Your task to perform on an android device: turn pop-ups off in chrome Image 0: 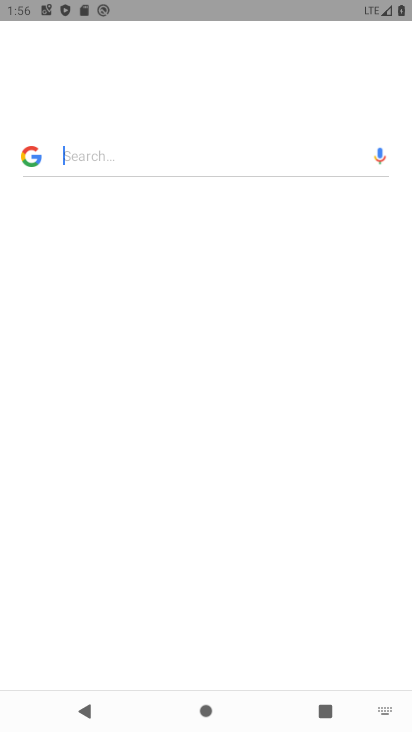
Step 0: drag from (195, 551) to (205, 194)
Your task to perform on an android device: turn pop-ups off in chrome Image 1: 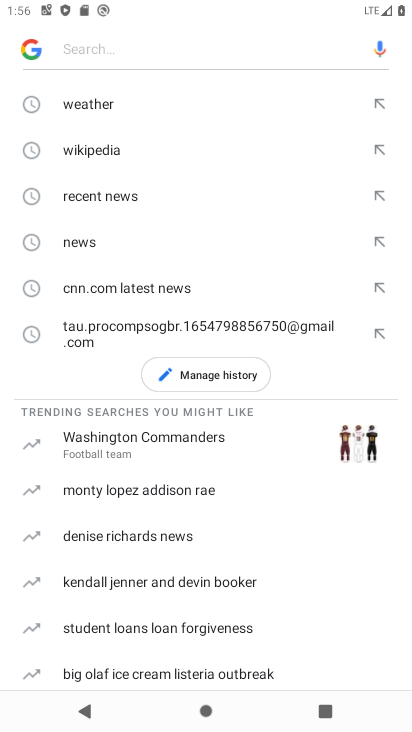
Step 1: press home button
Your task to perform on an android device: turn pop-ups off in chrome Image 2: 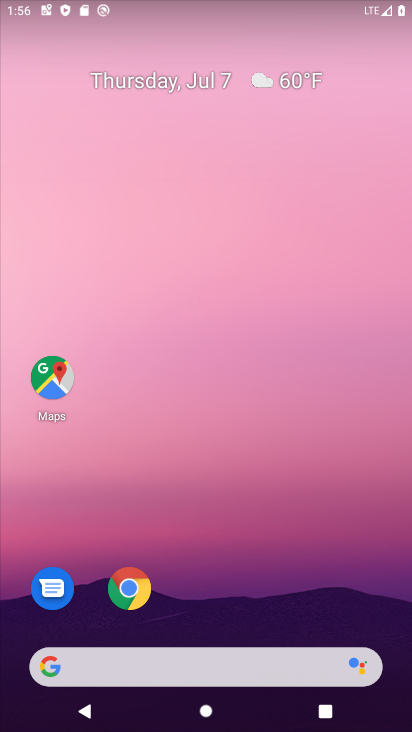
Step 2: drag from (227, 657) to (235, 241)
Your task to perform on an android device: turn pop-ups off in chrome Image 3: 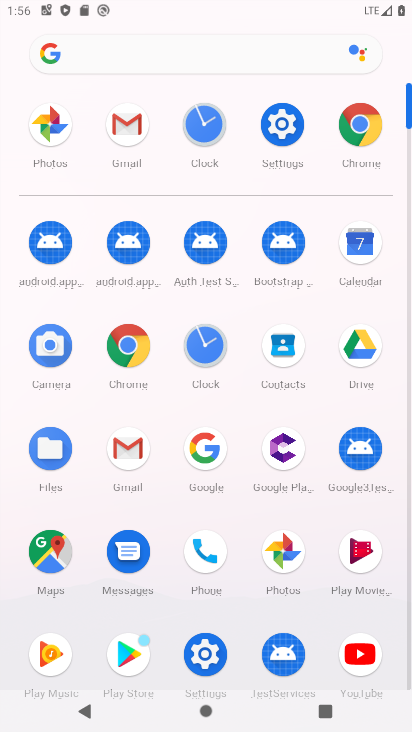
Step 3: click (284, 113)
Your task to perform on an android device: turn pop-ups off in chrome Image 4: 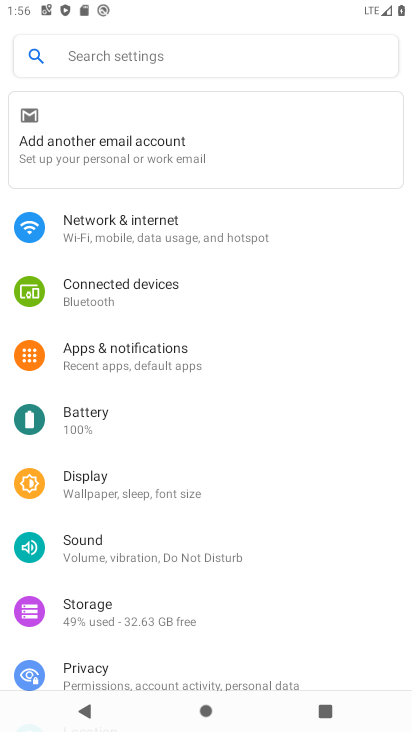
Step 4: press home button
Your task to perform on an android device: turn pop-ups off in chrome Image 5: 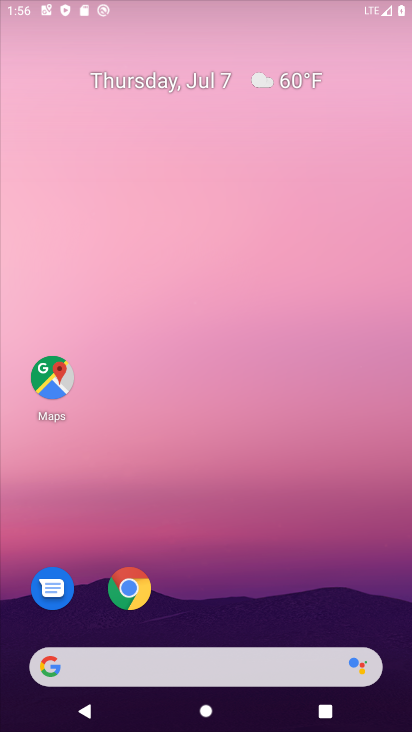
Step 5: drag from (173, 435) to (177, 131)
Your task to perform on an android device: turn pop-ups off in chrome Image 6: 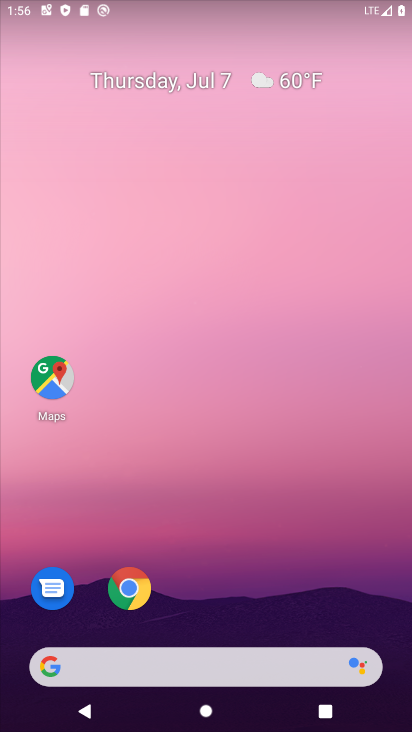
Step 6: click (128, 579)
Your task to perform on an android device: turn pop-ups off in chrome Image 7: 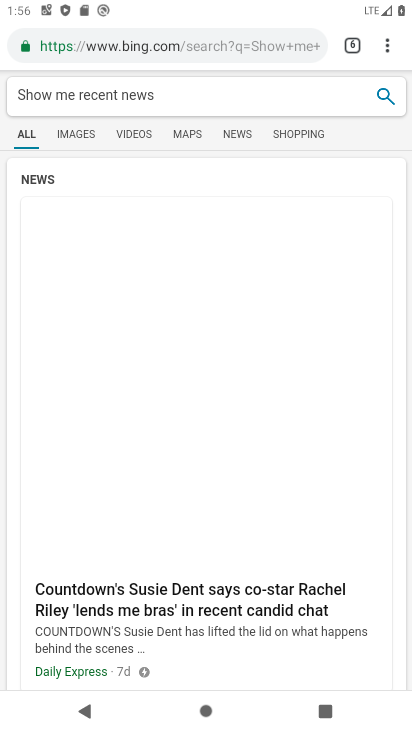
Step 7: click (375, 31)
Your task to perform on an android device: turn pop-ups off in chrome Image 8: 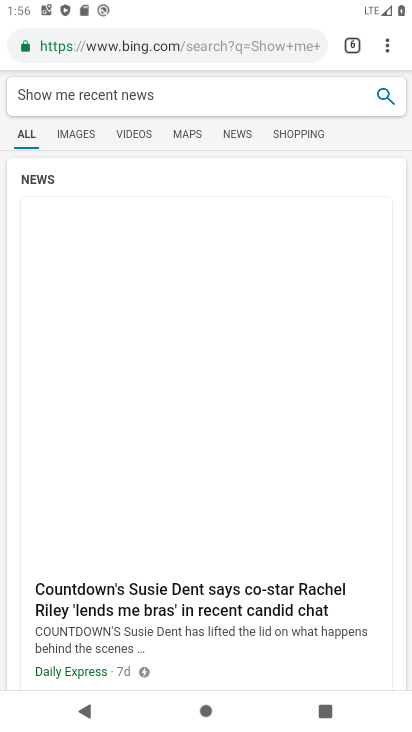
Step 8: click (382, 50)
Your task to perform on an android device: turn pop-ups off in chrome Image 9: 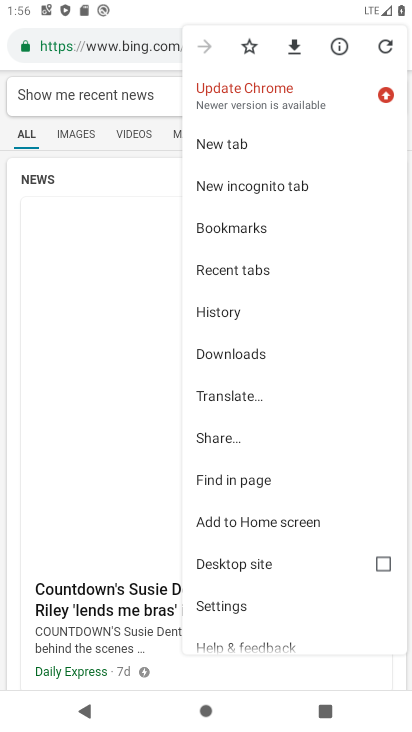
Step 9: click (244, 604)
Your task to perform on an android device: turn pop-ups off in chrome Image 10: 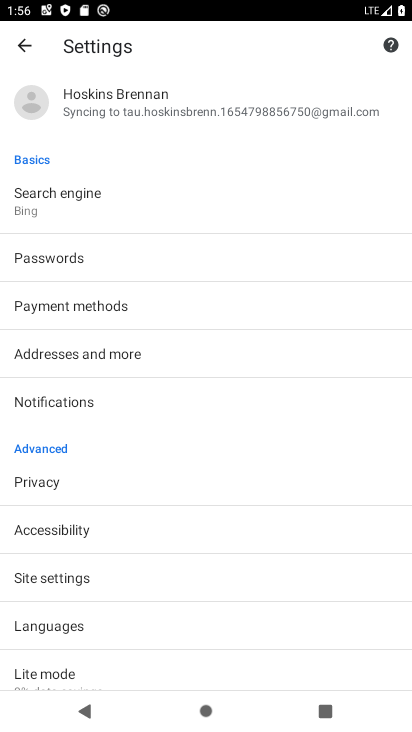
Step 10: drag from (105, 518) to (144, 304)
Your task to perform on an android device: turn pop-ups off in chrome Image 11: 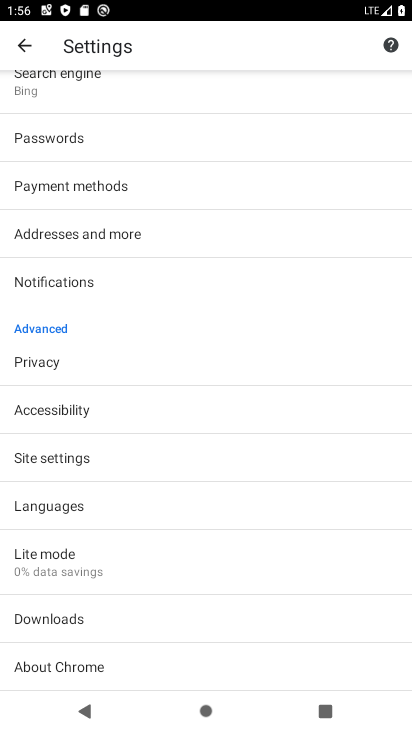
Step 11: click (119, 462)
Your task to perform on an android device: turn pop-ups off in chrome Image 12: 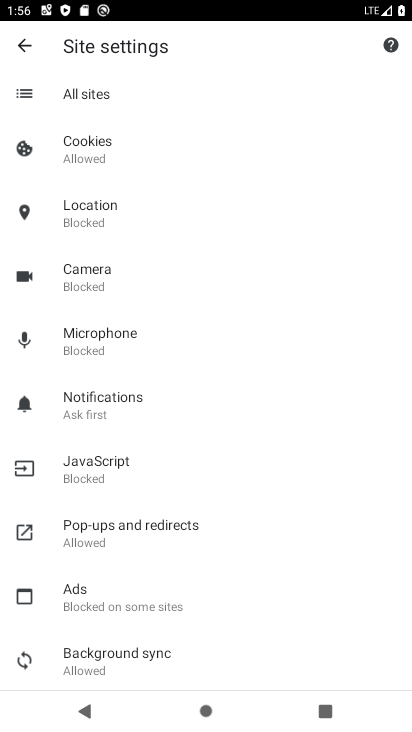
Step 12: click (123, 528)
Your task to perform on an android device: turn pop-ups off in chrome Image 13: 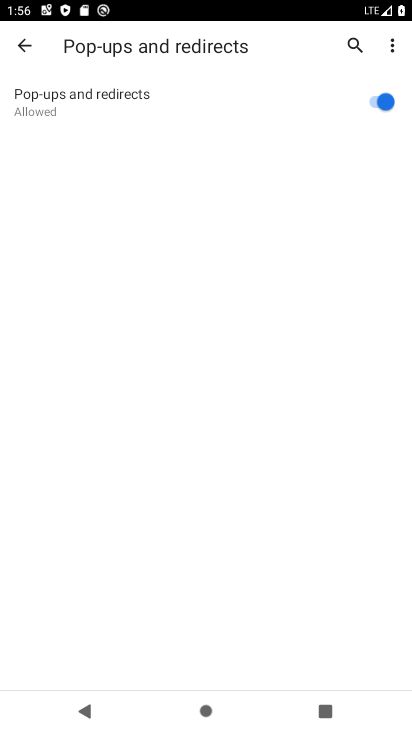
Step 13: click (385, 95)
Your task to perform on an android device: turn pop-ups off in chrome Image 14: 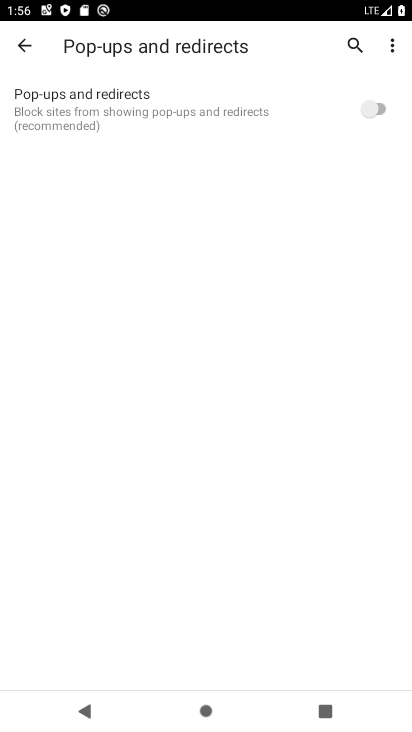
Step 14: task complete